Your task to perform on an android device: change notifications settings Image 0: 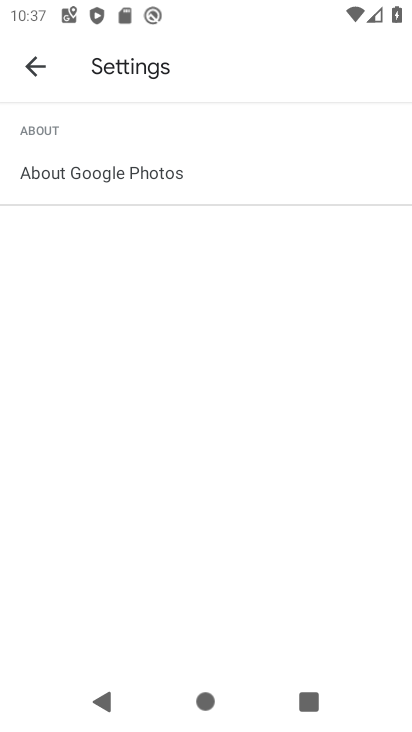
Step 0: press home button
Your task to perform on an android device: change notifications settings Image 1: 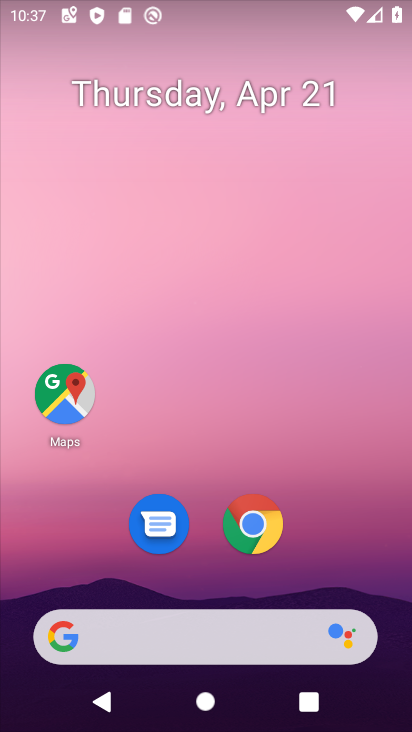
Step 1: drag from (344, 523) to (400, 73)
Your task to perform on an android device: change notifications settings Image 2: 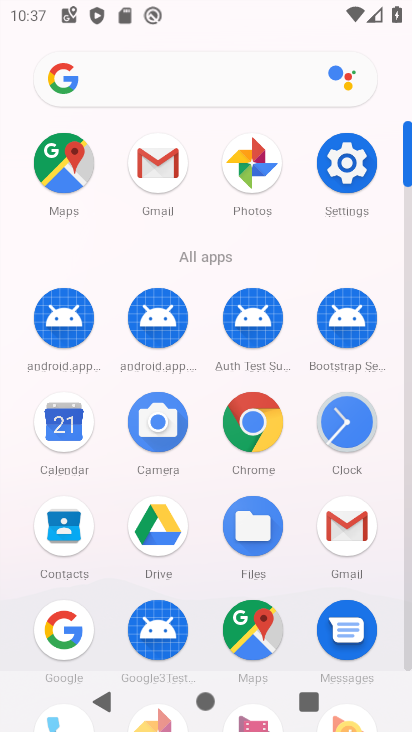
Step 2: click (349, 164)
Your task to perform on an android device: change notifications settings Image 3: 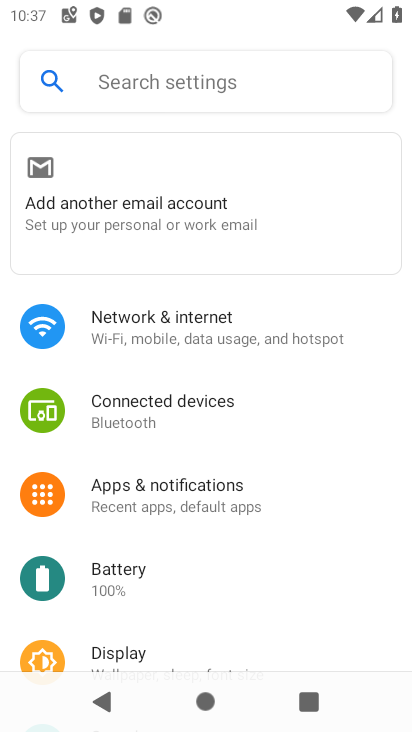
Step 3: click (199, 488)
Your task to perform on an android device: change notifications settings Image 4: 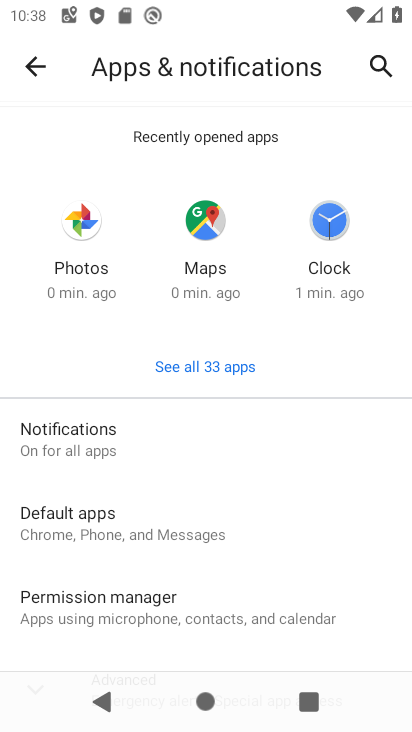
Step 4: click (222, 442)
Your task to perform on an android device: change notifications settings Image 5: 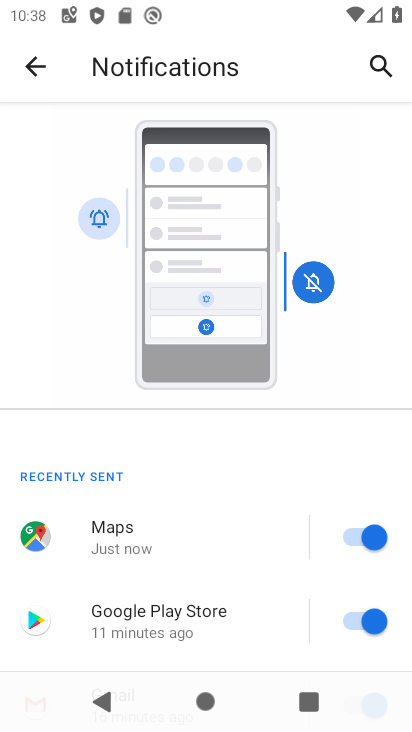
Step 5: drag from (236, 590) to (320, 197)
Your task to perform on an android device: change notifications settings Image 6: 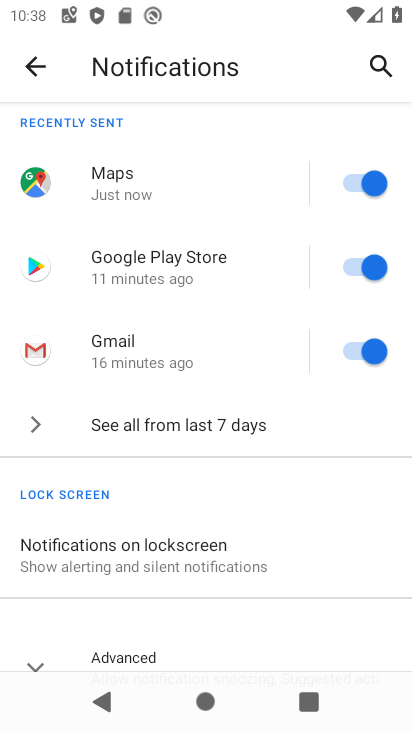
Step 6: click (216, 424)
Your task to perform on an android device: change notifications settings Image 7: 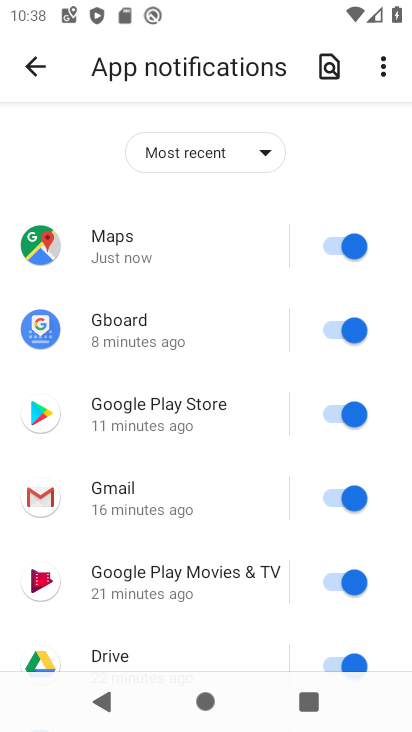
Step 7: click (346, 241)
Your task to perform on an android device: change notifications settings Image 8: 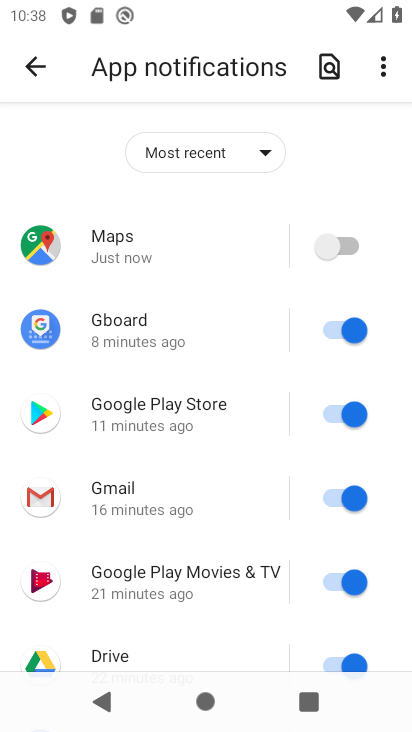
Step 8: click (331, 323)
Your task to perform on an android device: change notifications settings Image 9: 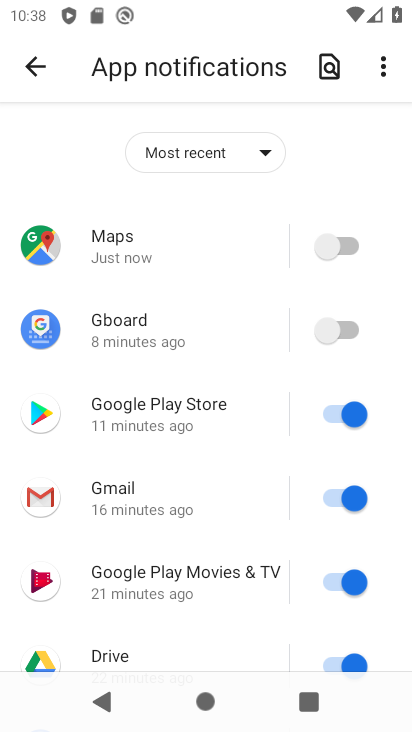
Step 9: click (332, 409)
Your task to perform on an android device: change notifications settings Image 10: 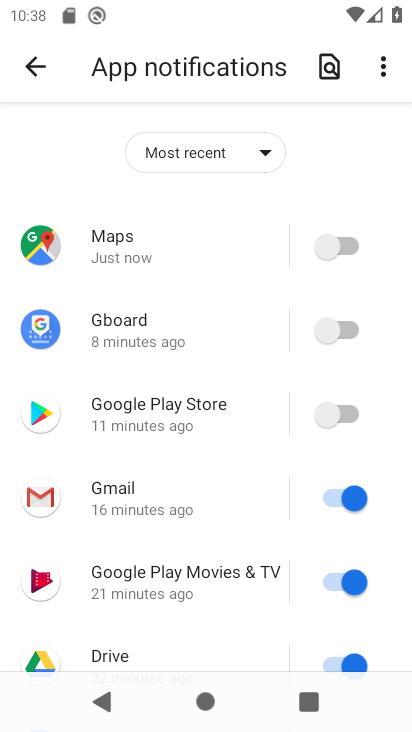
Step 10: click (335, 494)
Your task to perform on an android device: change notifications settings Image 11: 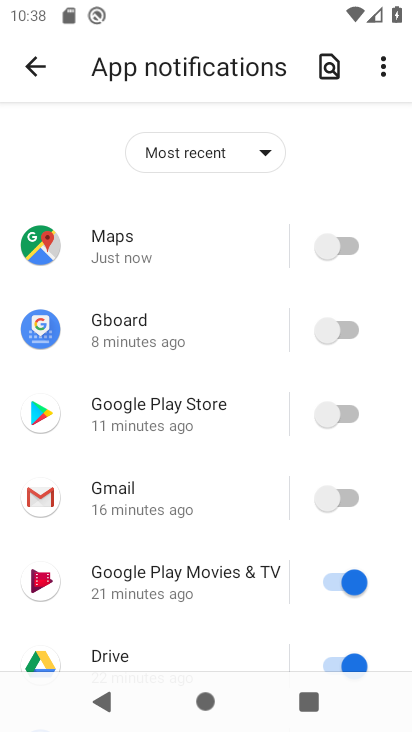
Step 11: click (338, 573)
Your task to perform on an android device: change notifications settings Image 12: 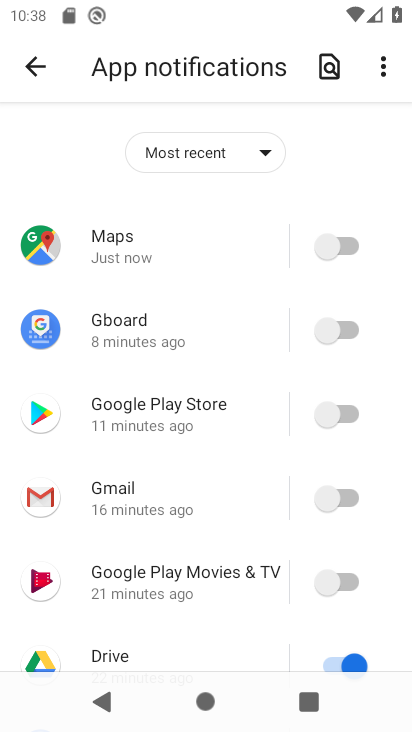
Step 12: click (335, 657)
Your task to perform on an android device: change notifications settings Image 13: 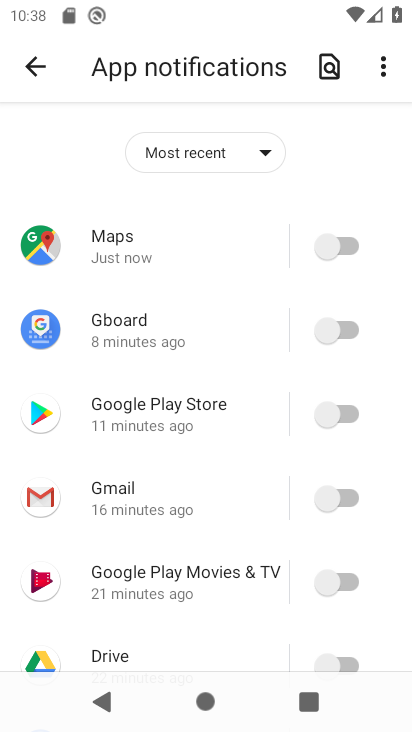
Step 13: drag from (230, 623) to (296, 243)
Your task to perform on an android device: change notifications settings Image 14: 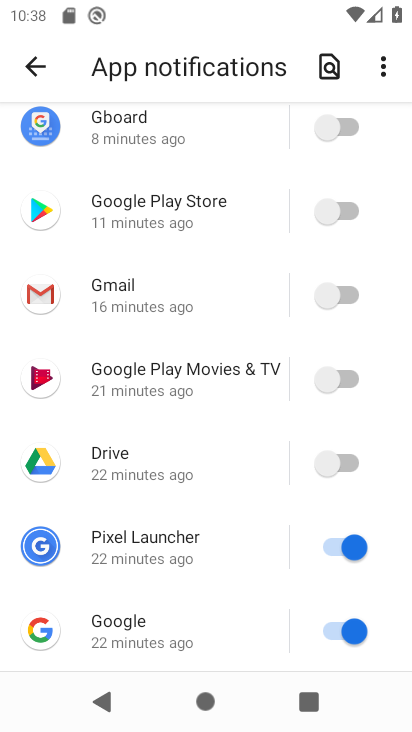
Step 14: drag from (186, 615) to (206, 407)
Your task to perform on an android device: change notifications settings Image 15: 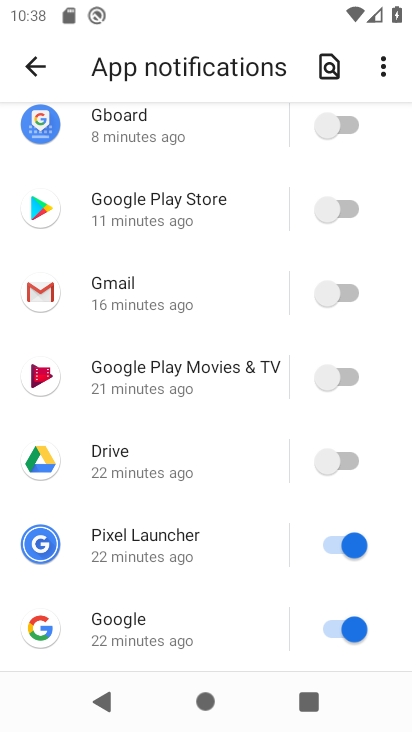
Step 15: click (343, 536)
Your task to perform on an android device: change notifications settings Image 16: 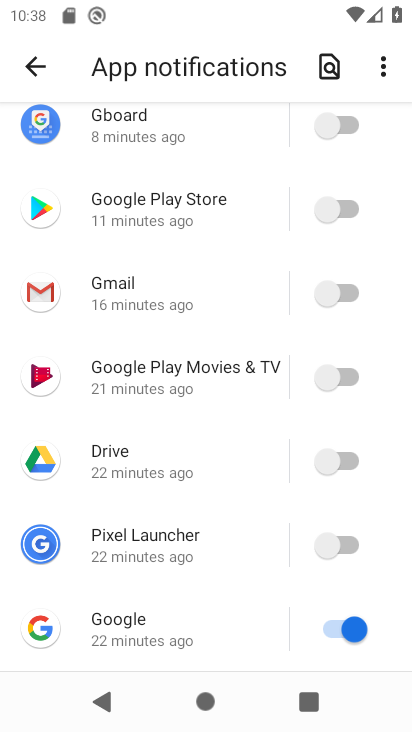
Step 16: click (338, 629)
Your task to perform on an android device: change notifications settings Image 17: 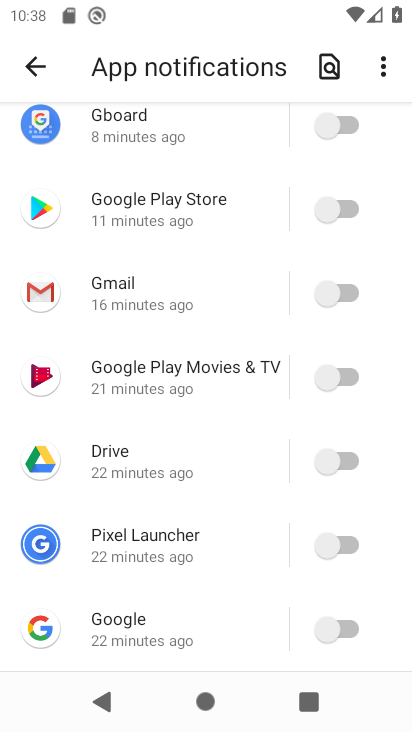
Step 17: task complete